Your task to perform on an android device: Show me recent news Image 0: 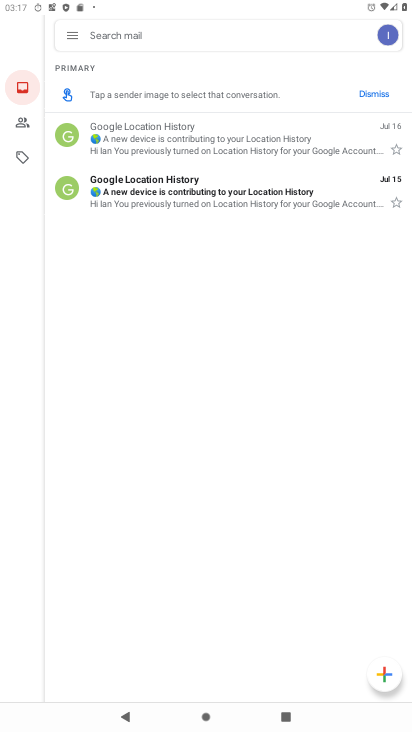
Step 0: press home button
Your task to perform on an android device: Show me recent news Image 1: 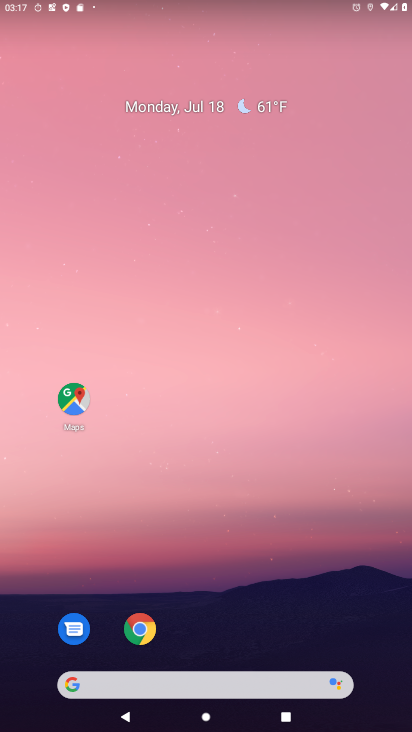
Step 1: drag from (178, 679) to (166, 111)
Your task to perform on an android device: Show me recent news Image 2: 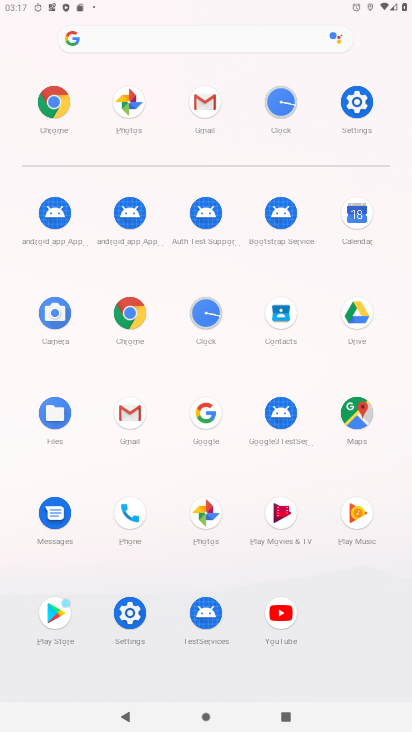
Step 2: click (206, 409)
Your task to perform on an android device: Show me recent news Image 3: 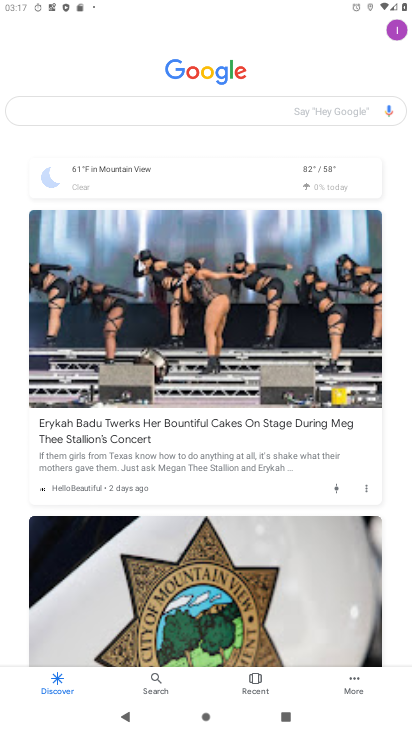
Step 3: click (209, 114)
Your task to perform on an android device: Show me recent news Image 4: 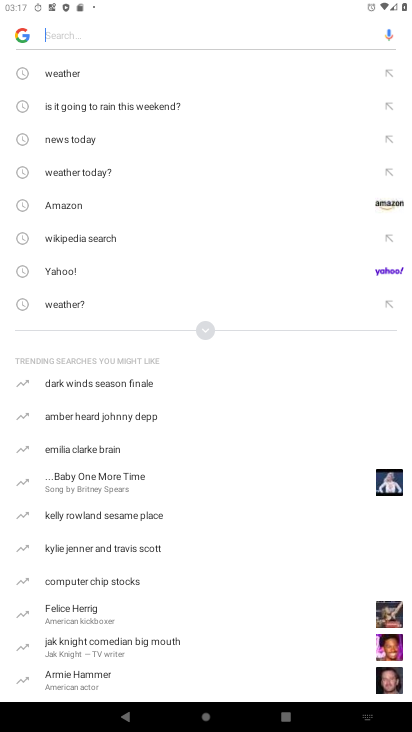
Step 4: type "recent news"
Your task to perform on an android device: Show me recent news Image 5: 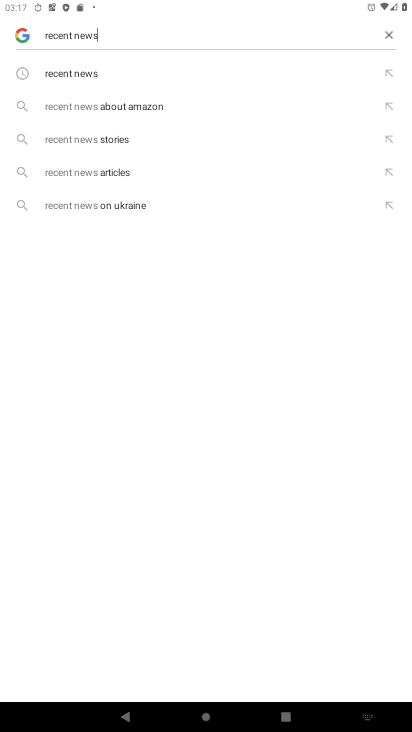
Step 5: click (57, 68)
Your task to perform on an android device: Show me recent news Image 6: 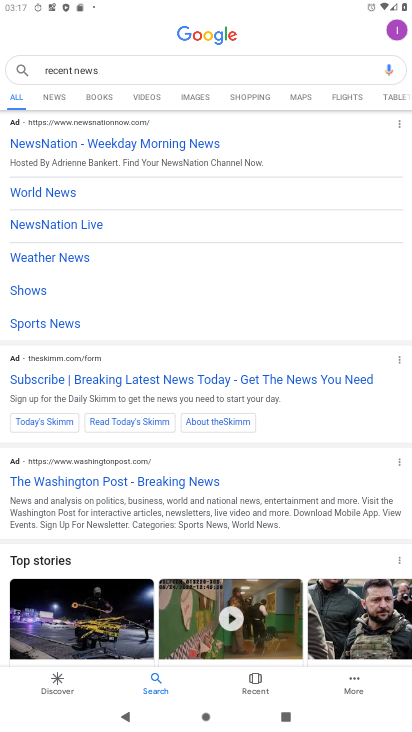
Step 6: drag from (83, 530) to (183, 303)
Your task to perform on an android device: Show me recent news Image 7: 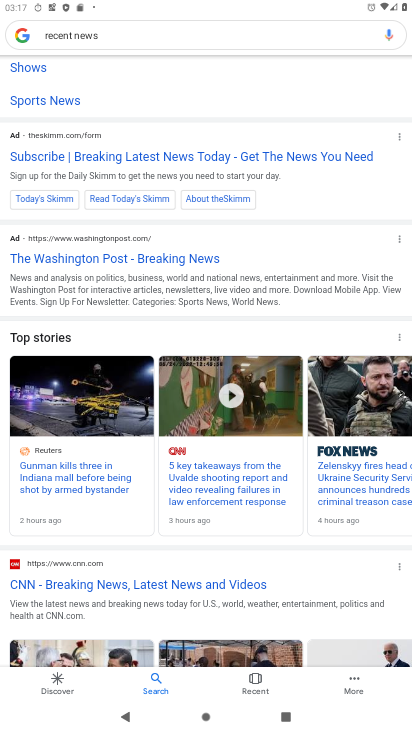
Step 7: click (100, 476)
Your task to perform on an android device: Show me recent news Image 8: 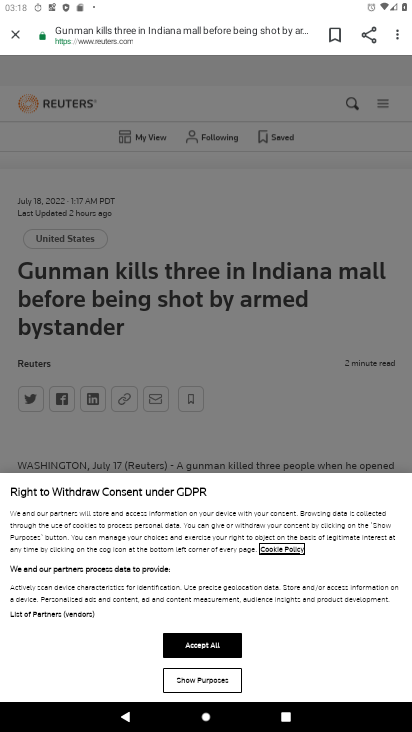
Step 8: task complete